Your task to perform on an android device: What is the recent news? Image 0: 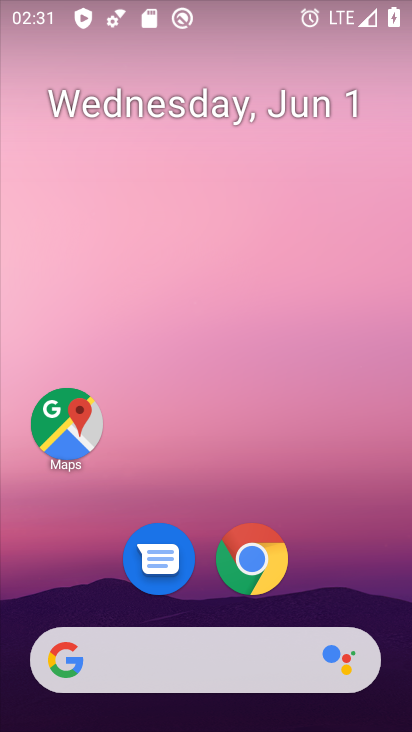
Step 0: click (61, 660)
Your task to perform on an android device: What is the recent news? Image 1: 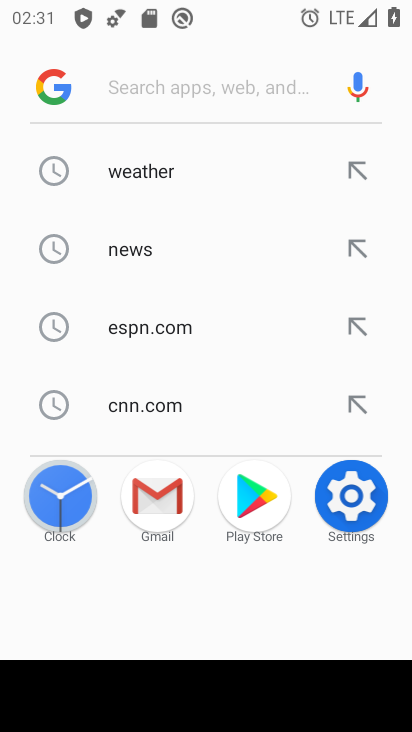
Step 1: type "recent news?"
Your task to perform on an android device: What is the recent news? Image 2: 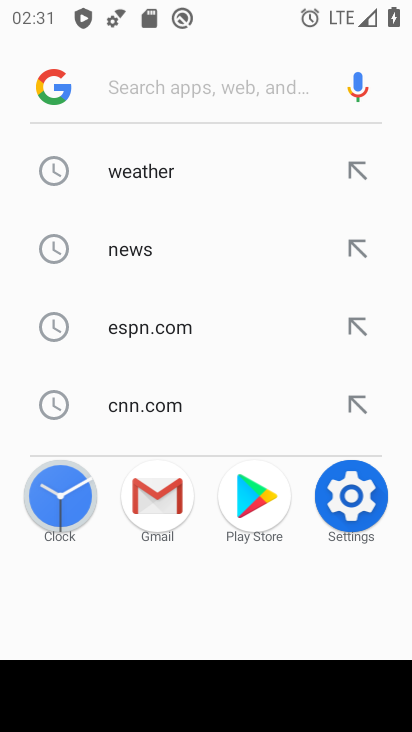
Step 2: click (202, 86)
Your task to perform on an android device: What is the recent news? Image 3: 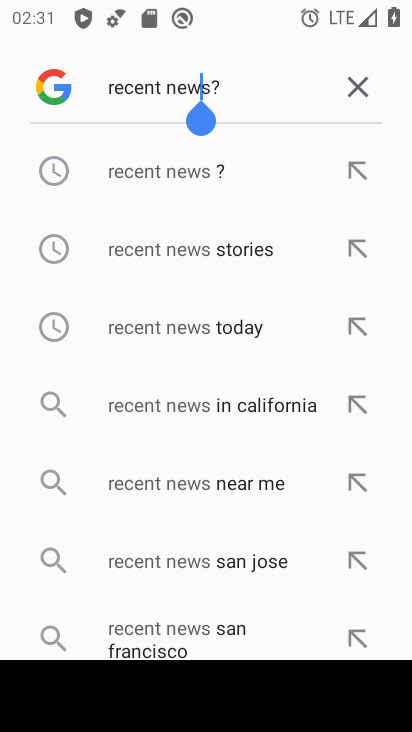
Step 3: click (160, 171)
Your task to perform on an android device: What is the recent news? Image 4: 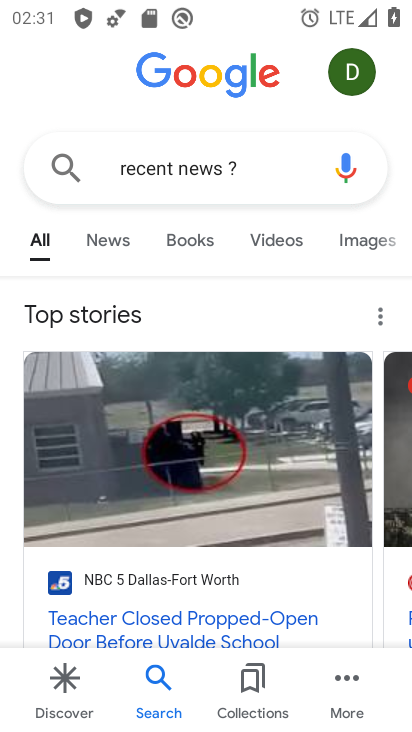
Step 4: task complete